Your task to perform on an android device: Open the stopwatch Image 0: 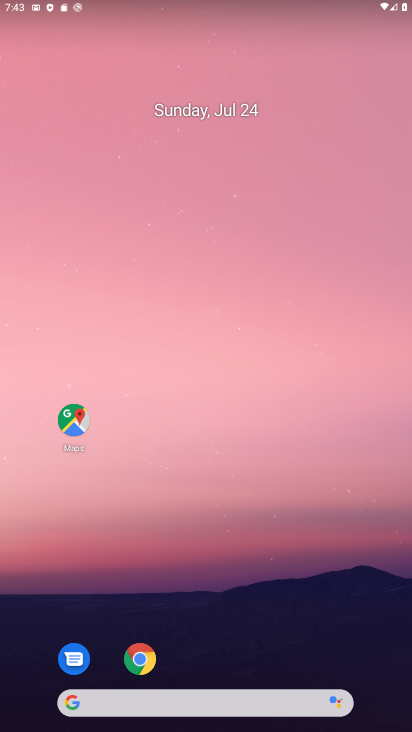
Step 0: drag from (145, 337) to (116, 110)
Your task to perform on an android device: Open the stopwatch Image 1: 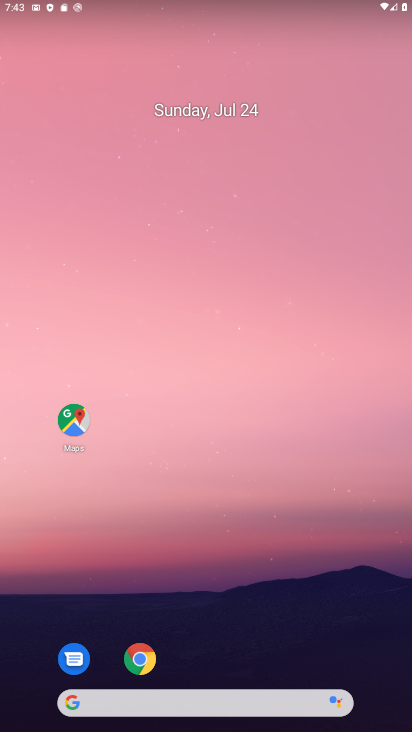
Step 1: drag from (171, 402) to (149, 158)
Your task to perform on an android device: Open the stopwatch Image 2: 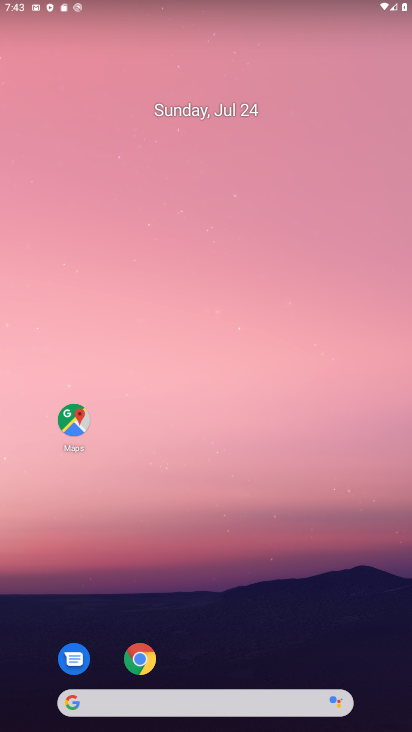
Step 2: drag from (216, 508) to (172, 162)
Your task to perform on an android device: Open the stopwatch Image 3: 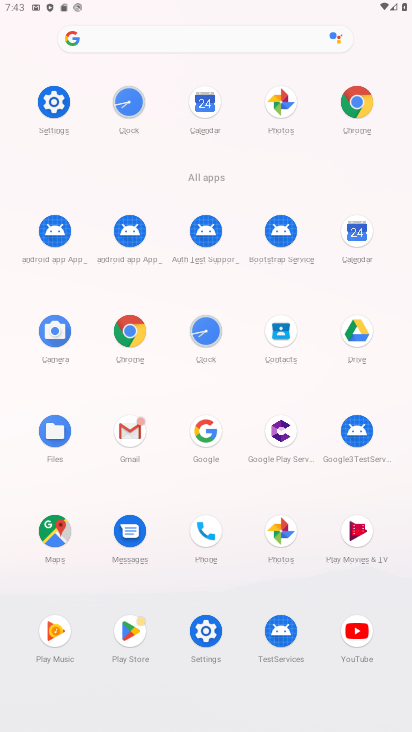
Step 3: click (201, 326)
Your task to perform on an android device: Open the stopwatch Image 4: 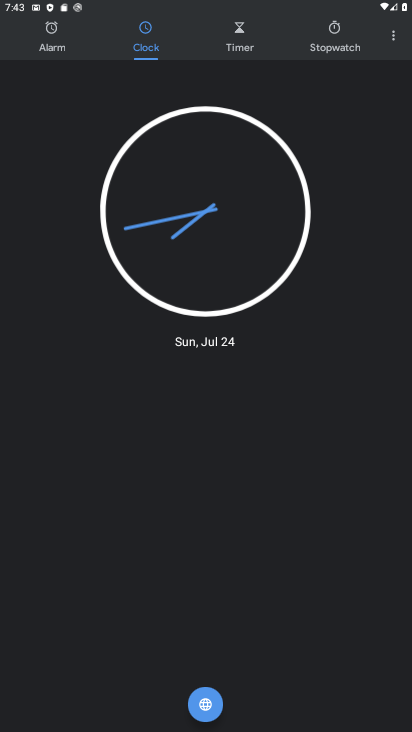
Step 4: click (322, 36)
Your task to perform on an android device: Open the stopwatch Image 5: 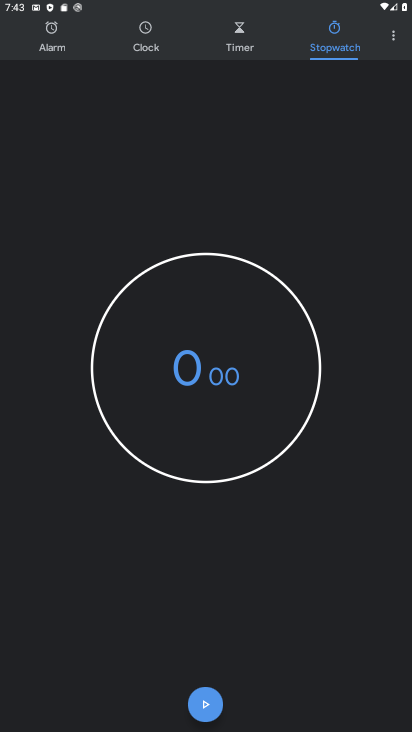
Step 5: task complete